Your task to perform on an android device: turn on wifi Image 0: 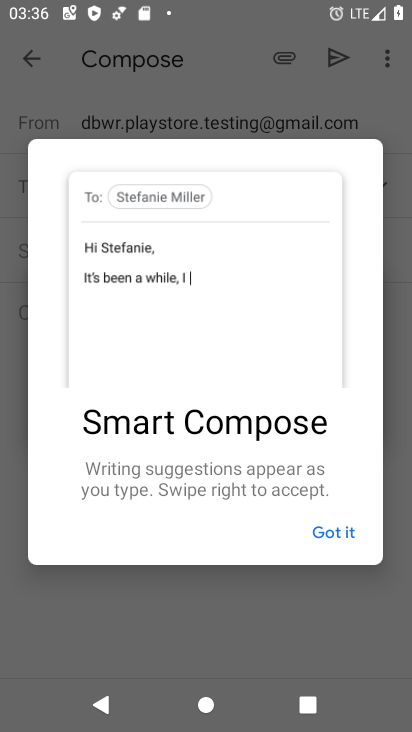
Step 0: press home button
Your task to perform on an android device: turn on wifi Image 1: 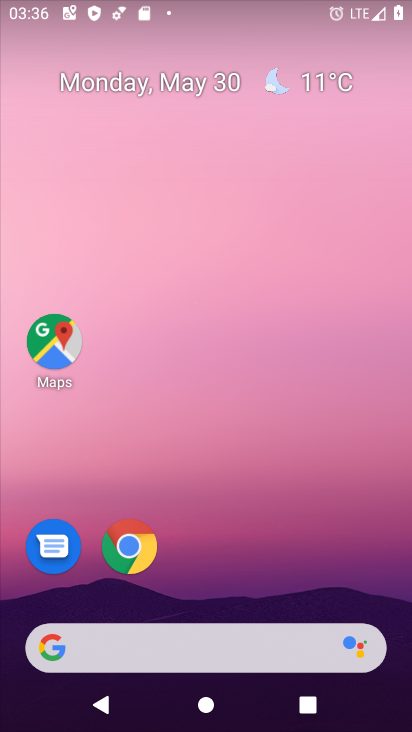
Step 1: drag from (213, 36) to (232, 583)
Your task to perform on an android device: turn on wifi Image 2: 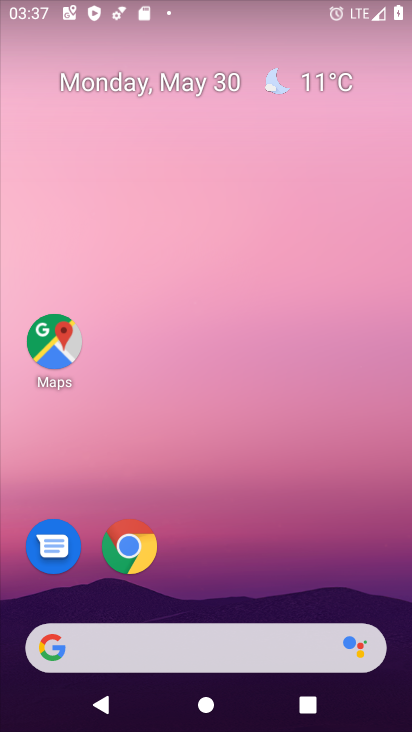
Step 2: drag from (223, 54) to (250, 516)
Your task to perform on an android device: turn on wifi Image 3: 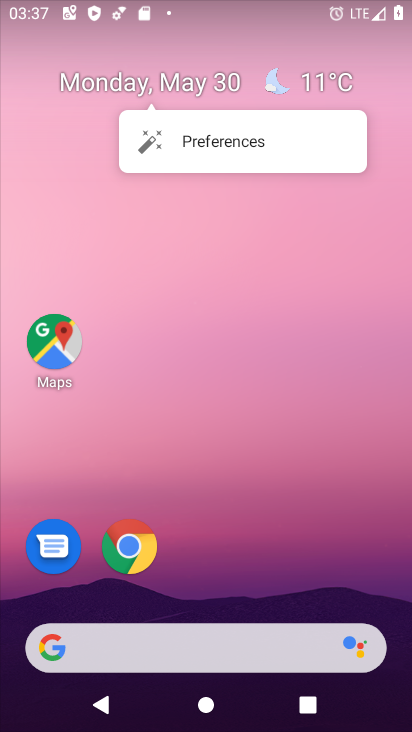
Step 3: drag from (189, 8) to (233, 557)
Your task to perform on an android device: turn on wifi Image 4: 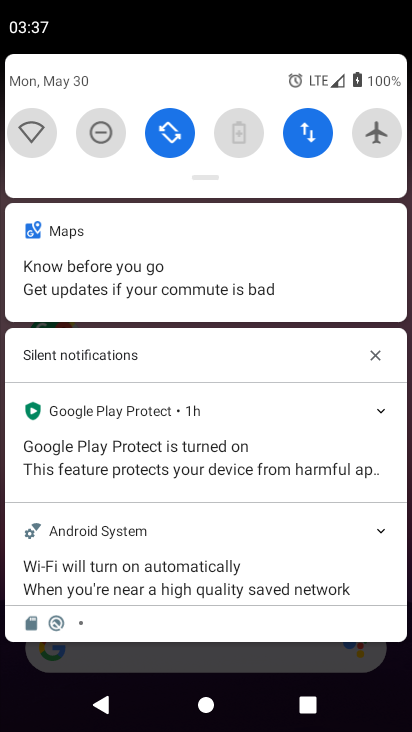
Step 4: click (40, 144)
Your task to perform on an android device: turn on wifi Image 5: 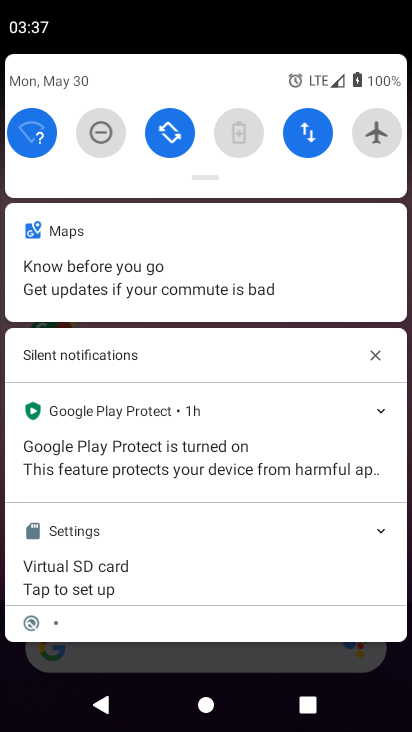
Step 5: task complete